Your task to perform on an android device: Open calendar and show me the first week of next month Image 0: 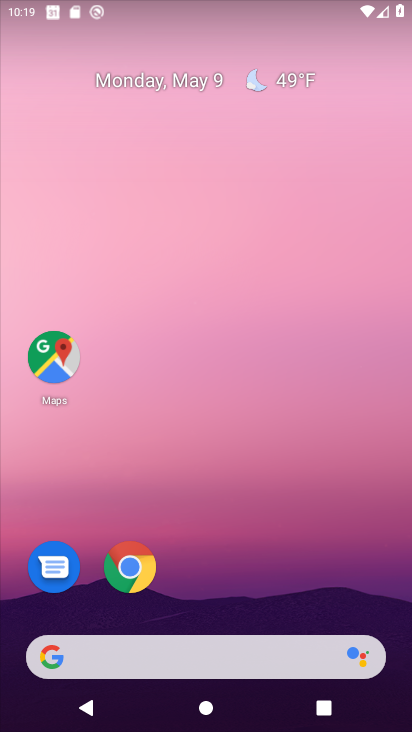
Step 0: drag from (230, 583) to (234, 211)
Your task to perform on an android device: Open calendar and show me the first week of next month Image 1: 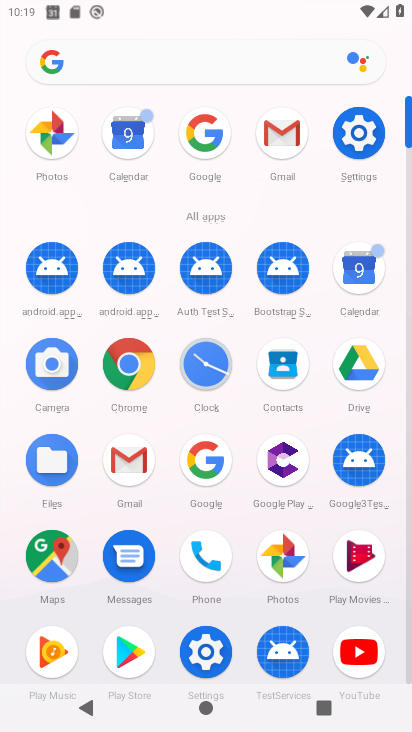
Step 1: click (365, 276)
Your task to perform on an android device: Open calendar and show me the first week of next month Image 2: 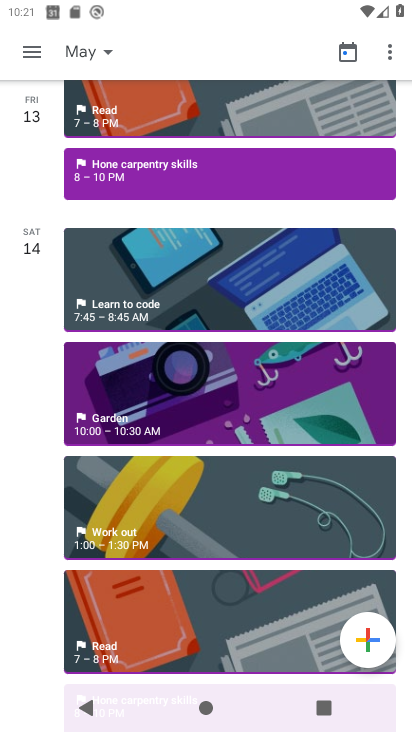
Step 2: click (73, 57)
Your task to perform on an android device: Open calendar and show me the first week of next month Image 3: 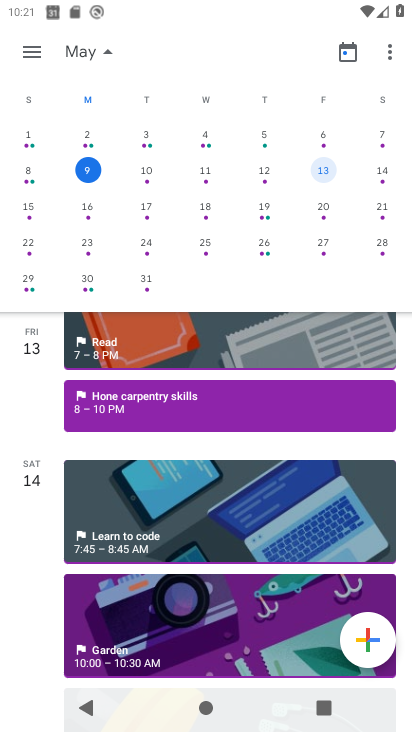
Step 3: task complete